Your task to perform on an android device: Open Google Maps and go to "Timeline" Image 0: 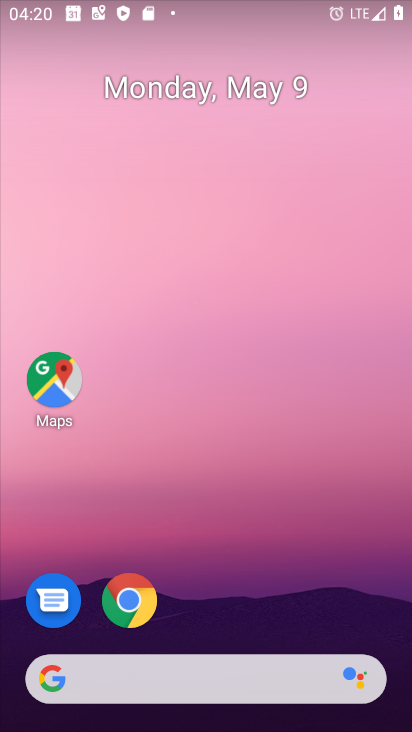
Step 0: drag from (176, 665) to (183, 161)
Your task to perform on an android device: Open Google Maps and go to "Timeline" Image 1: 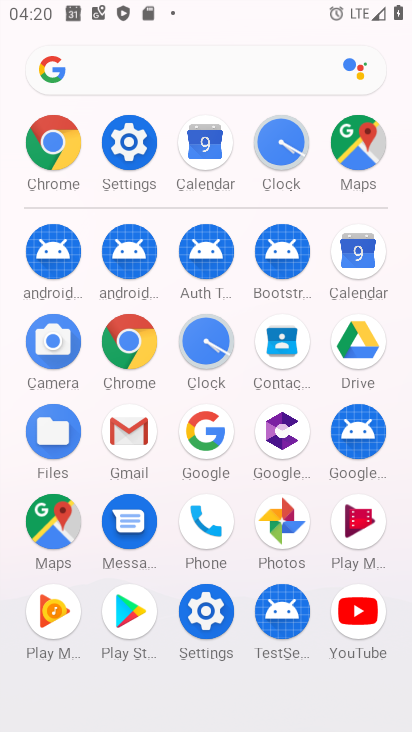
Step 1: click (129, 364)
Your task to perform on an android device: Open Google Maps and go to "Timeline" Image 2: 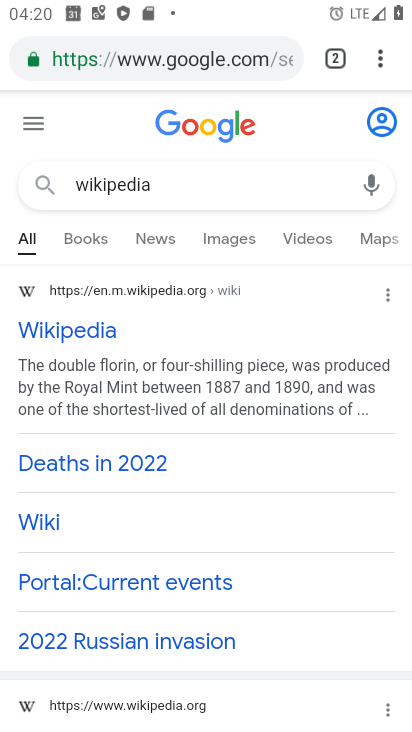
Step 2: click (199, 69)
Your task to perform on an android device: Open Google Maps and go to "Timeline" Image 3: 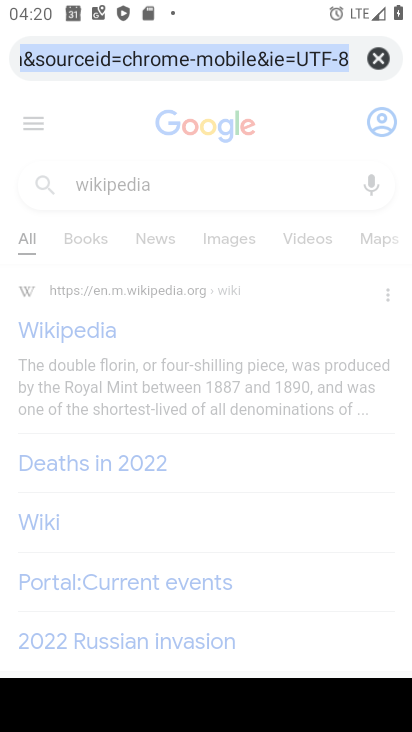
Step 3: click (373, 62)
Your task to perform on an android device: Open Google Maps and go to "Timeline" Image 4: 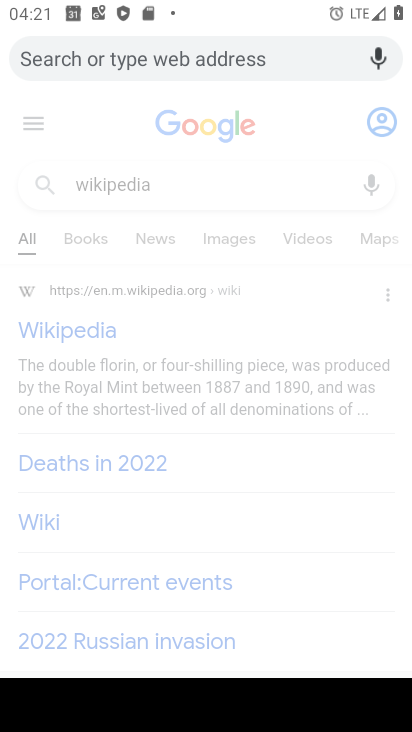
Step 4: type "ebay"
Your task to perform on an android device: Open Google Maps and go to "Timeline" Image 5: 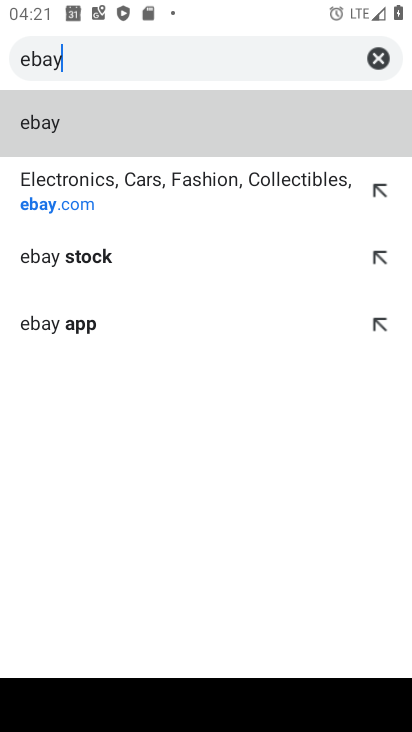
Step 5: click (74, 208)
Your task to perform on an android device: Open Google Maps and go to "Timeline" Image 6: 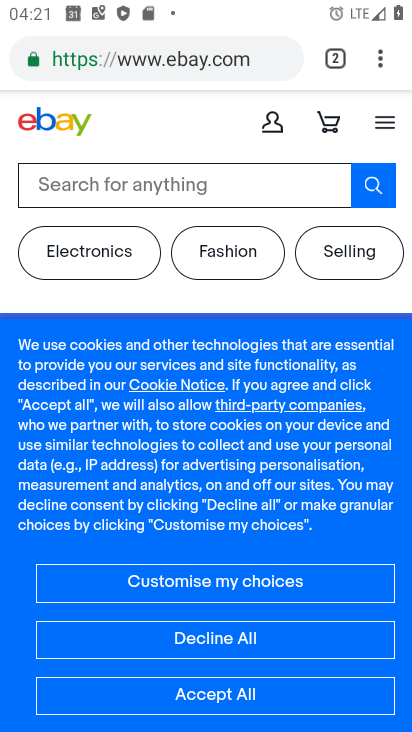
Step 6: task complete